Your task to perform on an android device: Open calendar and show me the fourth week of next month Image 0: 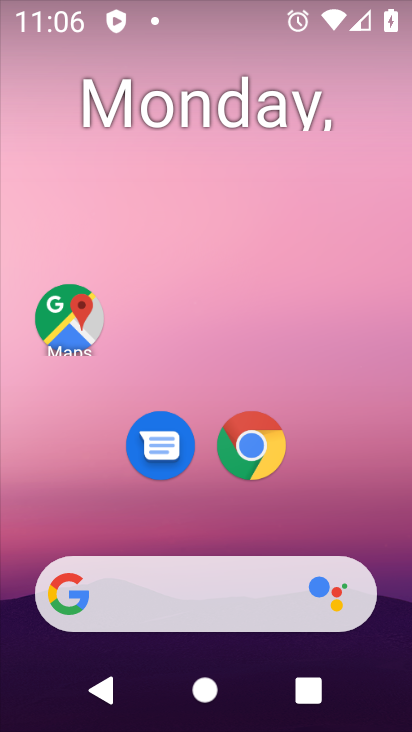
Step 0: drag from (305, 517) to (93, 125)
Your task to perform on an android device: Open calendar and show me the fourth week of next month Image 1: 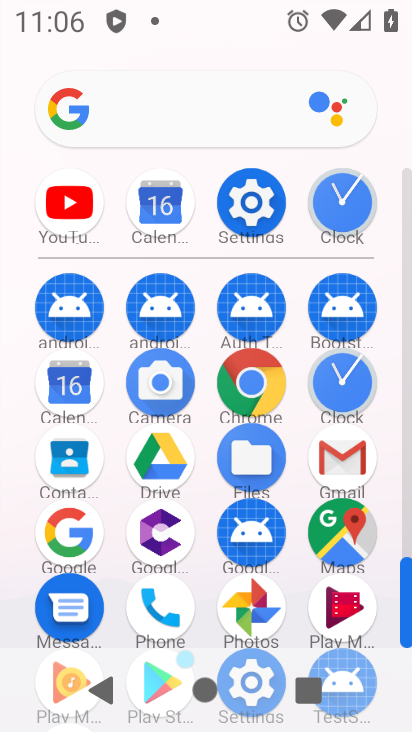
Step 1: click (162, 209)
Your task to perform on an android device: Open calendar and show me the fourth week of next month Image 2: 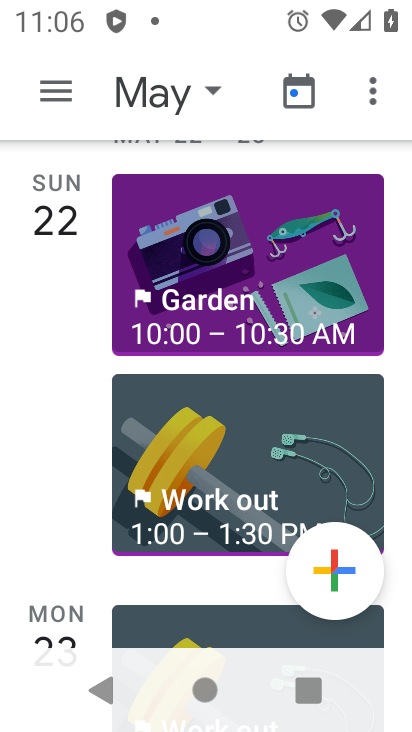
Step 2: click (139, 97)
Your task to perform on an android device: Open calendar and show me the fourth week of next month Image 3: 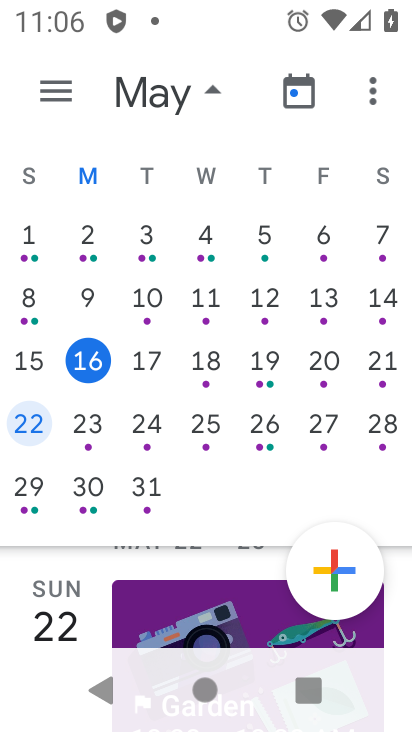
Step 3: drag from (351, 377) to (9, 383)
Your task to perform on an android device: Open calendar and show me the fourth week of next month Image 4: 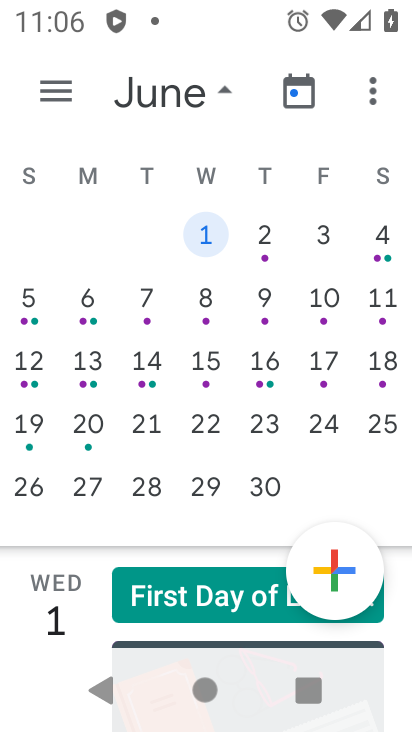
Step 4: click (31, 421)
Your task to perform on an android device: Open calendar and show me the fourth week of next month Image 5: 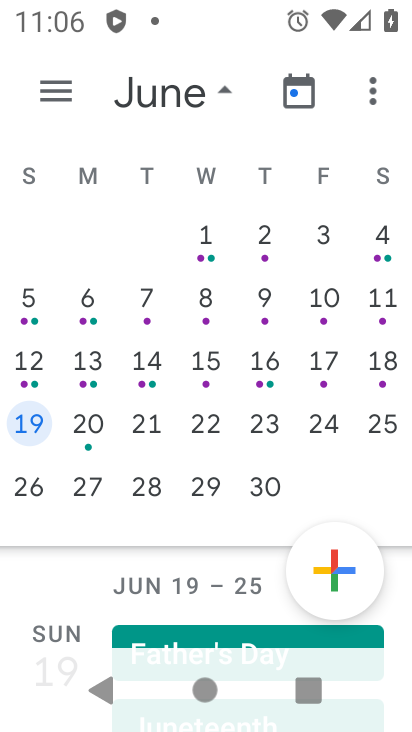
Step 5: click (176, 102)
Your task to perform on an android device: Open calendar and show me the fourth week of next month Image 6: 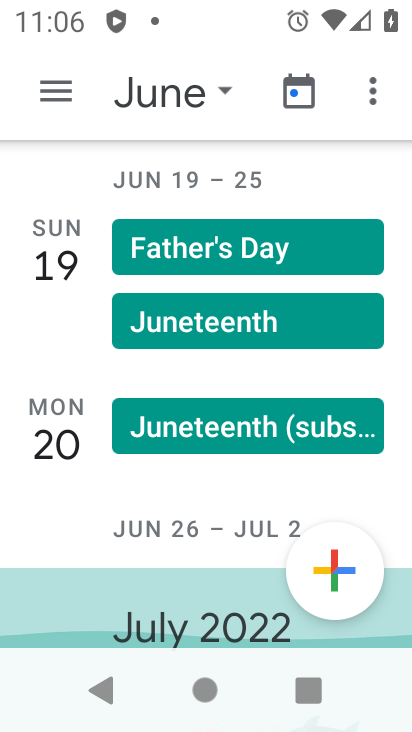
Step 6: click (61, 95)
Your task to perform on an android device: Open calendar and show me the fourth week of next month Image 7: 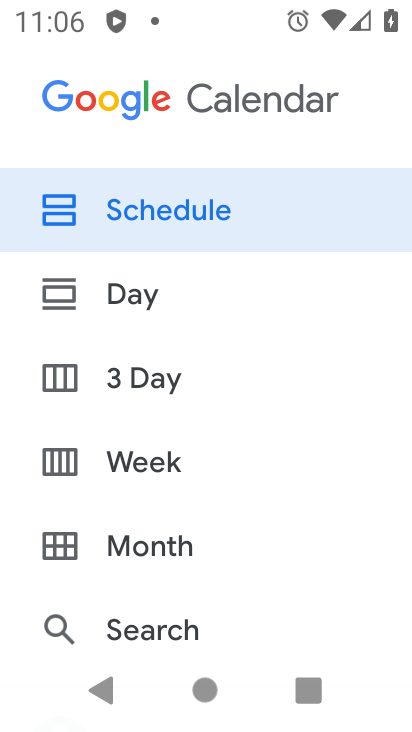
Step 7: click (128, 455)
Your task to perform on an android device: Open calendar and show me the fourth week of next month Image 8: 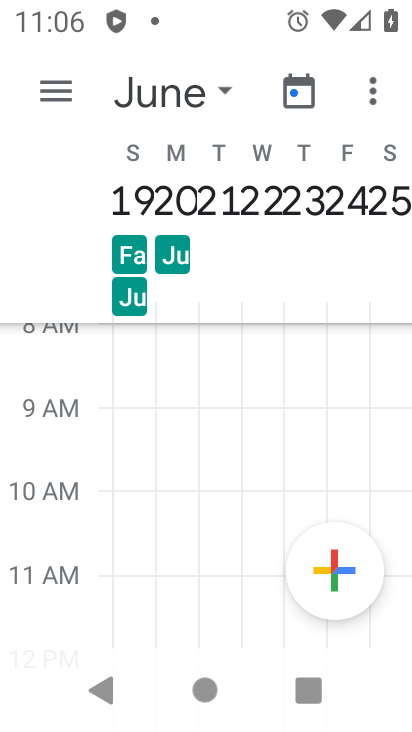
Step 8: task complete